Your task to perform on an android device: toggle wifi Image 0: 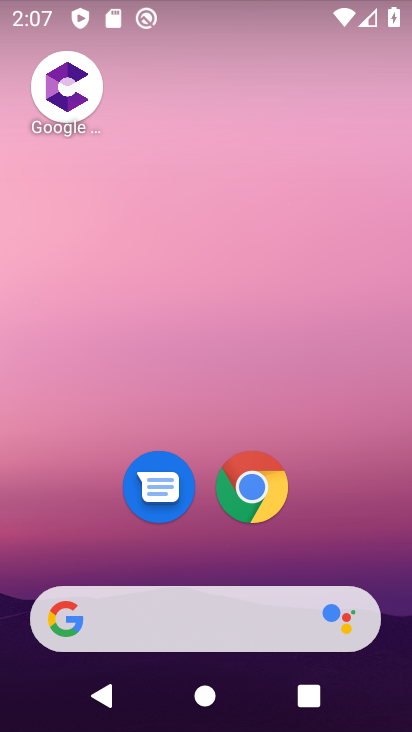
Step 0: drag from (227, 505) to (249, 62)
Your task to perform on an android device: toggle wifi Image 1: 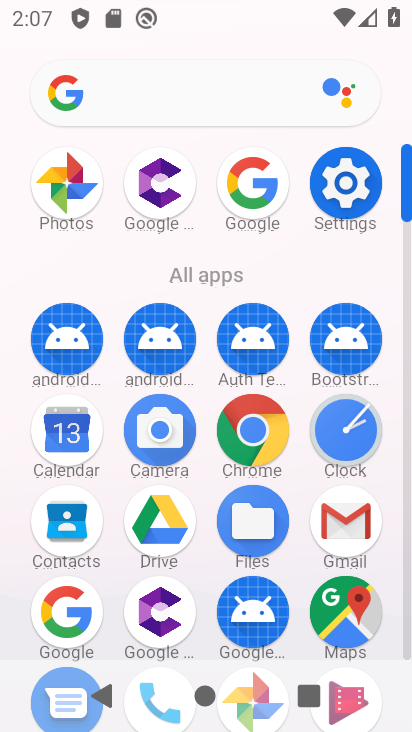
Step 1: click (340, 189)
Your task to perform on an android device: toggle wifi Image 2: 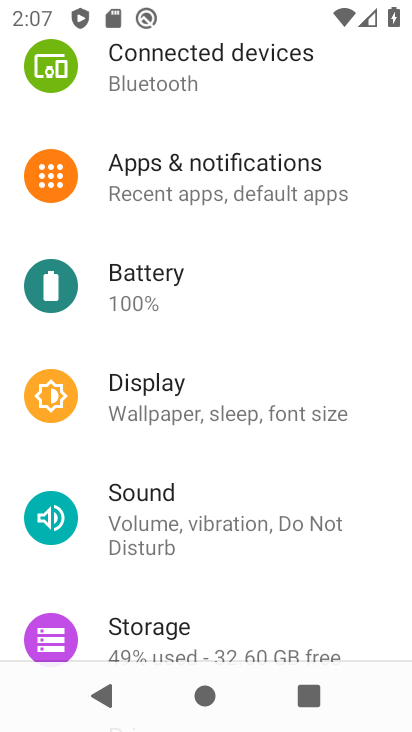
Step 2: drag from (300, 165) to (284, 542)
Your task to perform on an android device: toggle wifi Image 3: 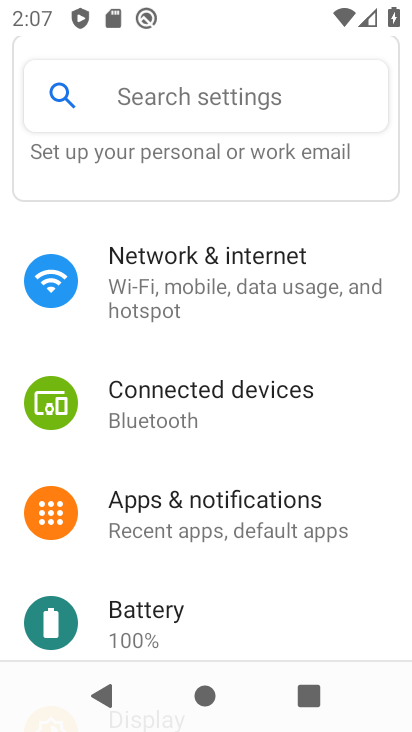
Step 3: click (223, 290)
Your task to perform on an android device: toggle wifi Image 4: 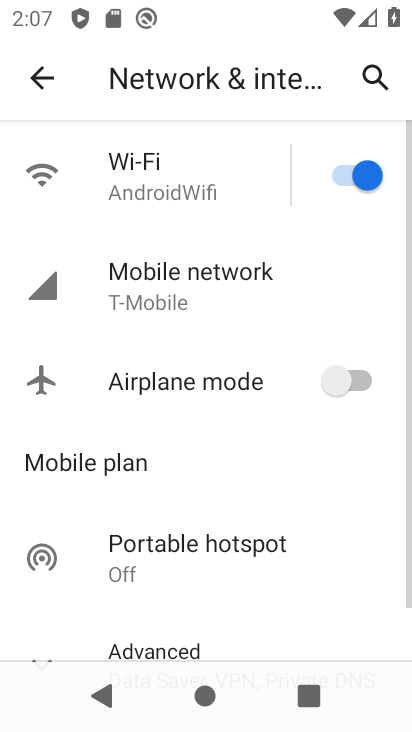
Step 4: click (350, 180)
Your task to perform on an android device: toggle wifi Image 5: 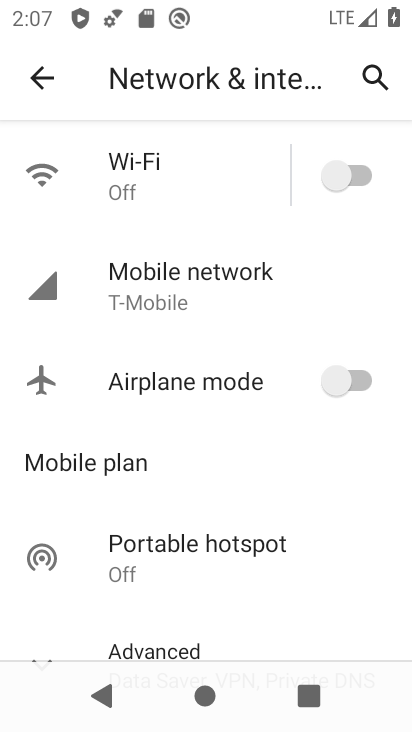
Step 5: task complete